Your task to perform on an android device: check data usage Image 0: 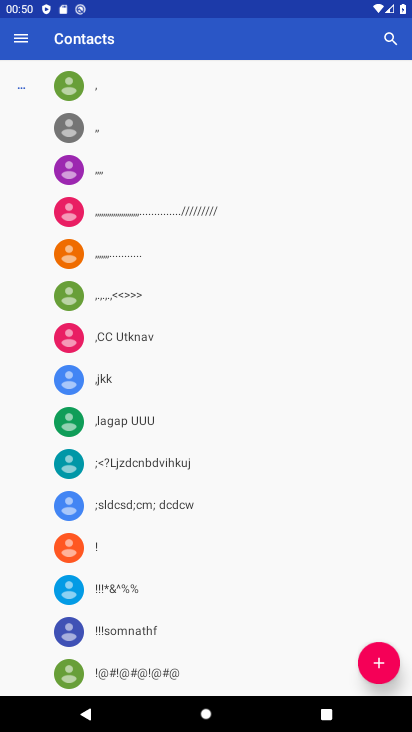
Step 0: press home button
Your task to perform on an android device: check data usage Image 1: 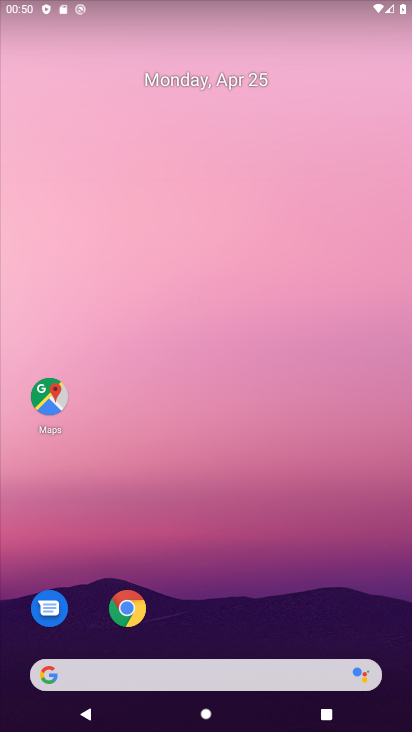
Step 1: drag from (235, 612) to (226, 116)
Your task to perform on an android device: check data usage Image 2: 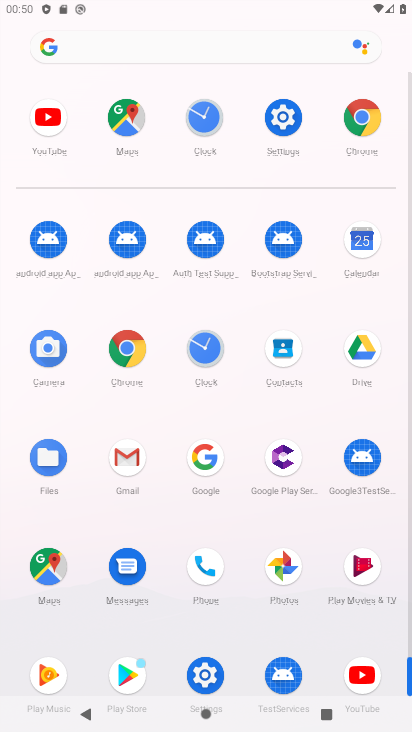
Step 2: click (281, 122)
Your task to perform on an android device: check data usage Image 3: 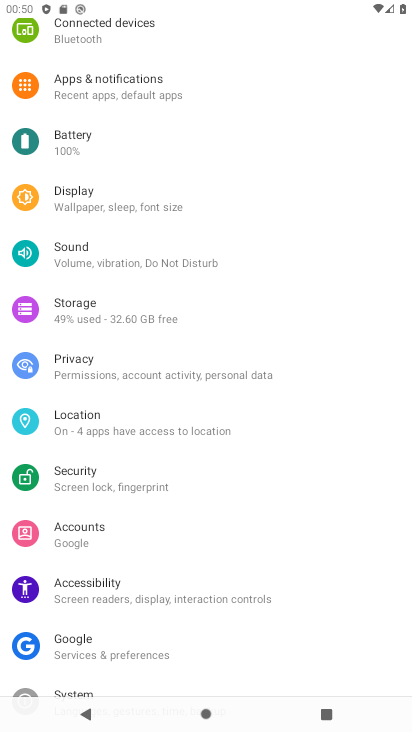
Step 3: drag from (255, 99) to (220, 574)
Your task to perform on an android device: check data usage Image 4: 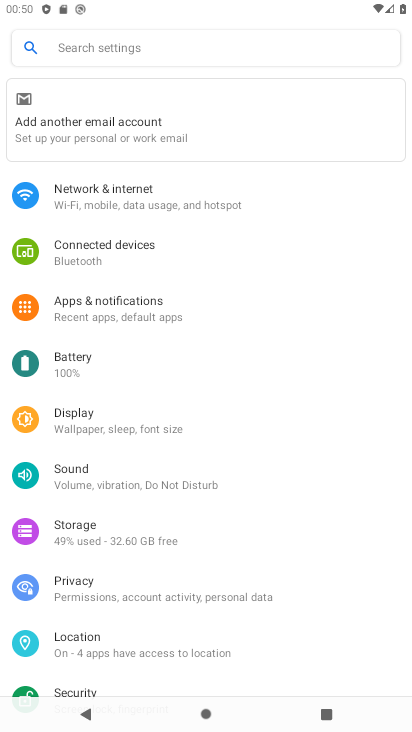
Step 4: click (152, 212)
Your task to perform on an android device: check data usage Image 5: 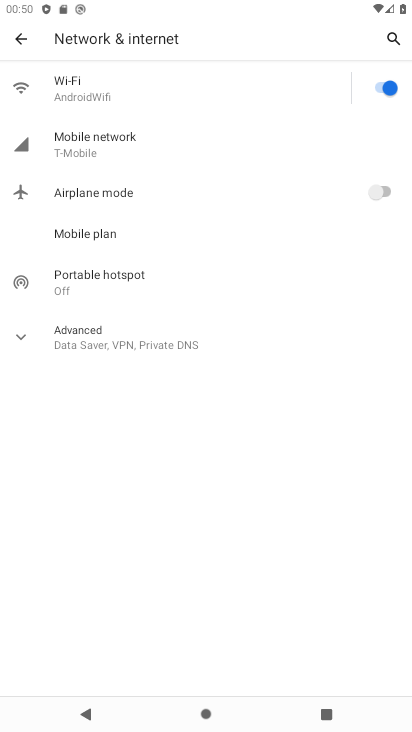
Step 5: click (134, 81)
Your task to perform on an android device: check data usage Image 6: 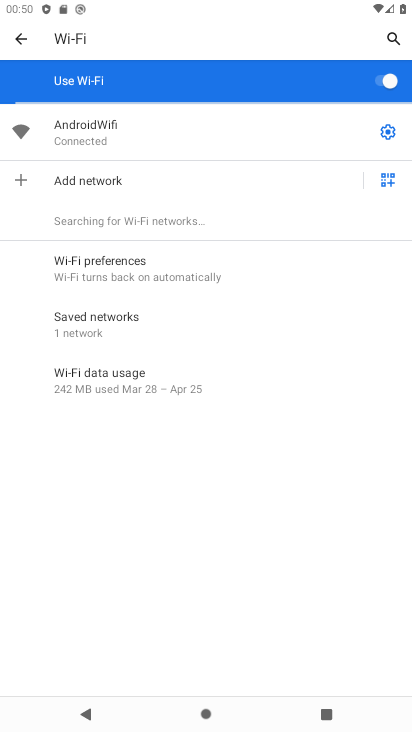
Step 6: click (160, 388)
Your task to perform on an android device: check data usage Image 7: 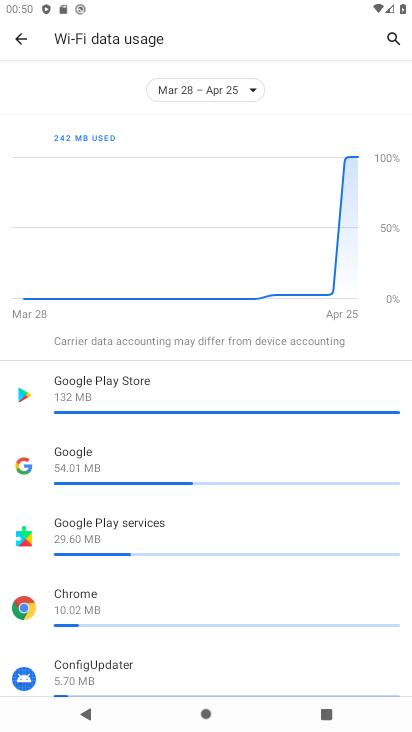
Step 7: task complete